Your task to perform on an android device: open app "WhatsApp Messenger" Image 0: 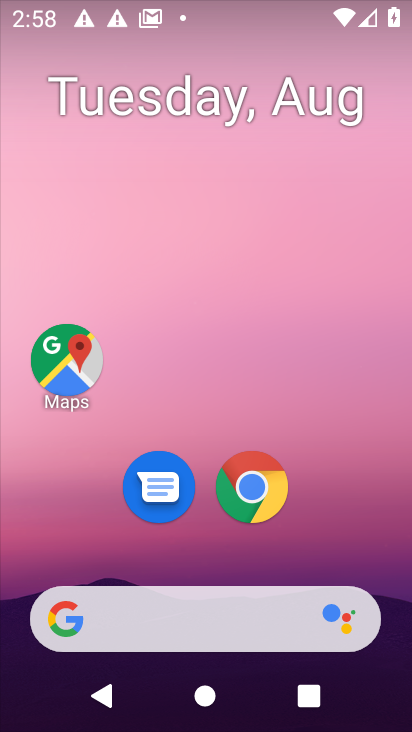
Step 0: drag from (195, 642) to (245, 9)
Your task to perform on an android device: open app "WhatsApp Messenger" Image 1: 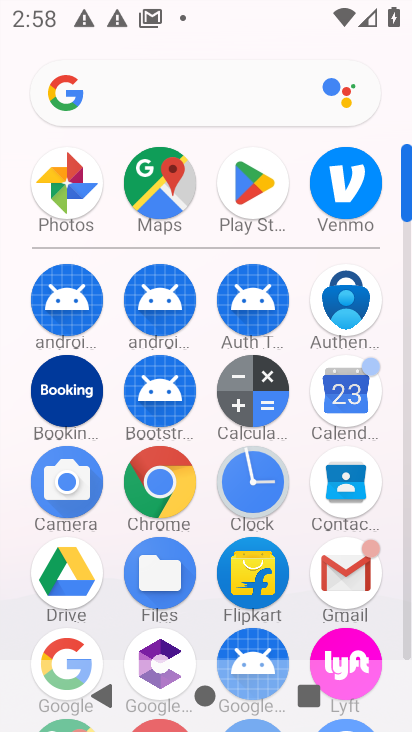
Step 1: click (257, 181)
Your task to perform on an android device: open app "WhatsApp Messenger" Image 2: 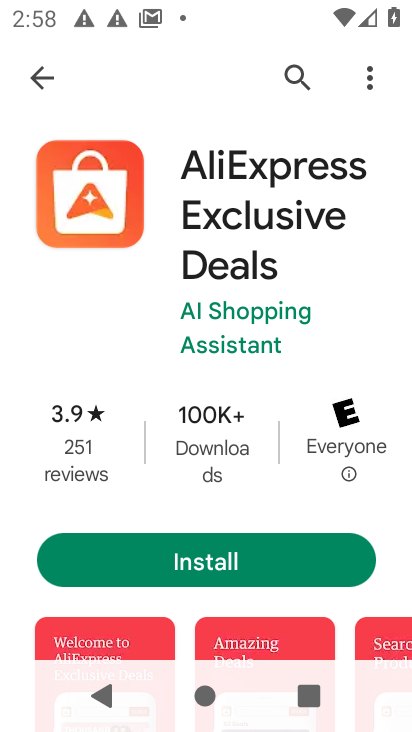
Step 2: press back button
Your task to perform on an android device: open app "WhatsApp Messenger" Image 3: 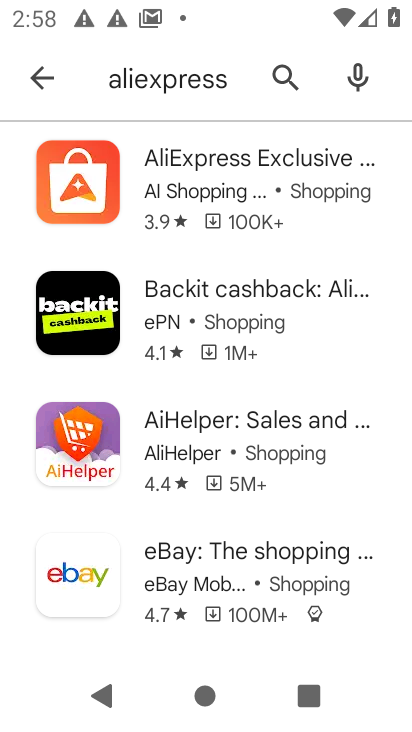
Step 3: press back button
Your task to perform on an android device: open app "WhatsApp Messenger" Image 4: 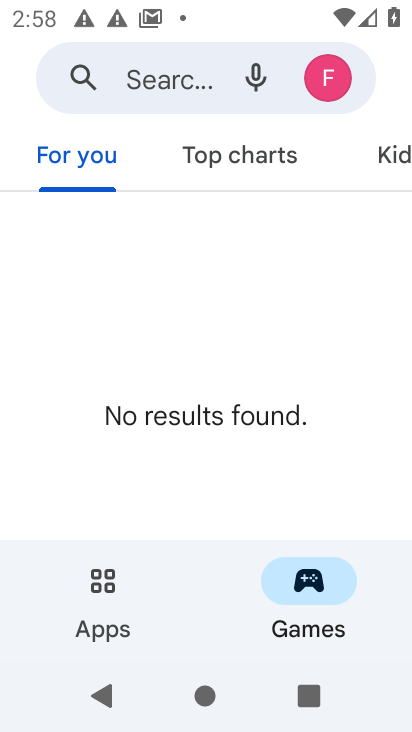
Step 4: click (178, 82)
Your task to perform on an android device: open app "WhatsApp Messenger" Image 5: 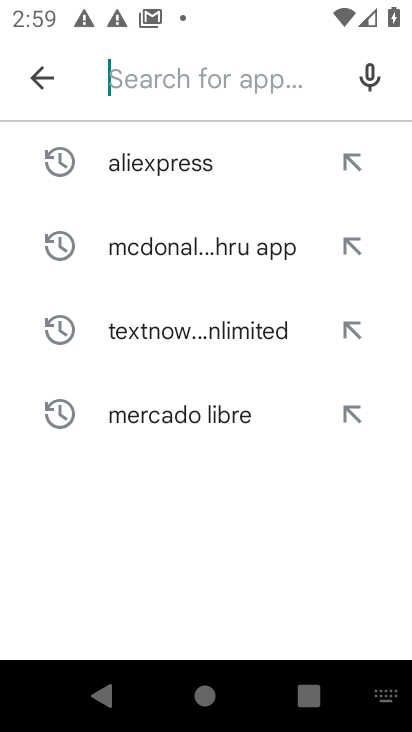
Step 5: type "WhatsApp Messenger"
Your task to perform on an android device: open app "WhatsApp Messenger" Image 6: 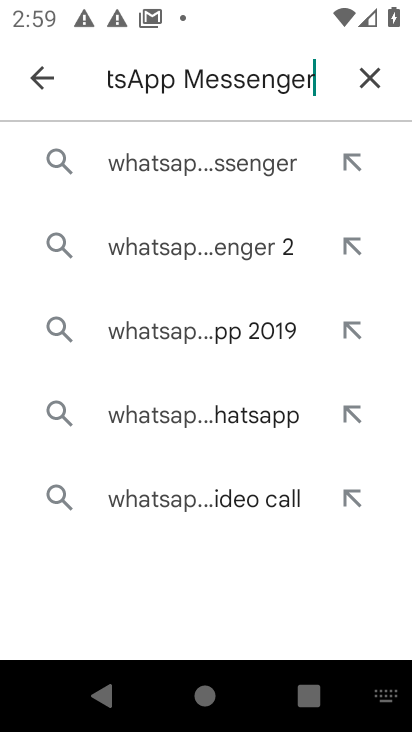
Step 6: click (249, 169)
Your task to perform on an android device: open app "WhatsApp Messenger" Image 7: 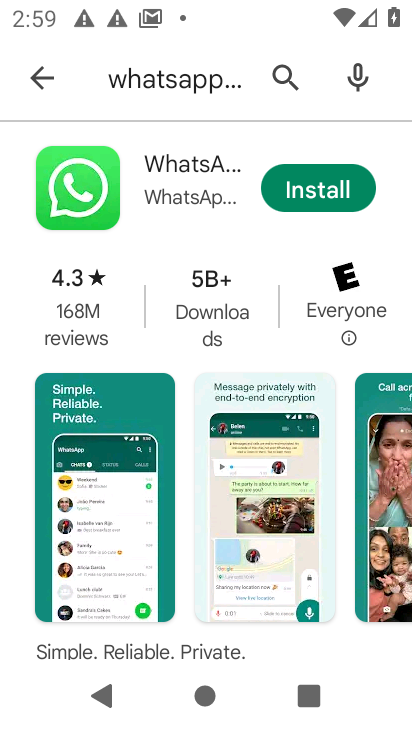
Step 7: task complete